Your task to perform on an android device: allow notifications from all sites in the chrome app Image 0: 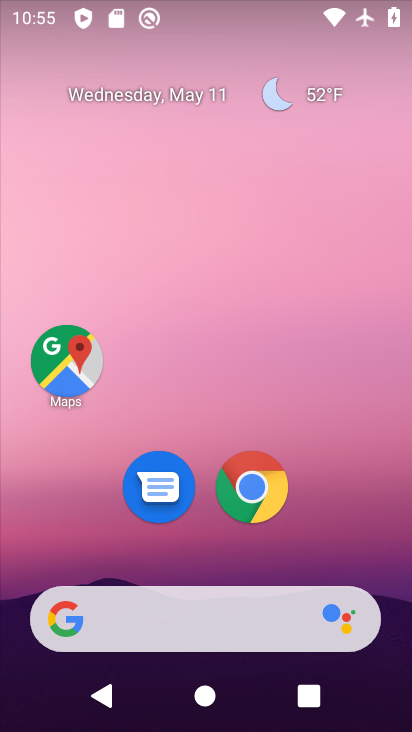
Step 0: drag from (334, 507) to (253, 28)
Your task to perform on an android device: allow notifications from all sites in the chrome app Image 1: 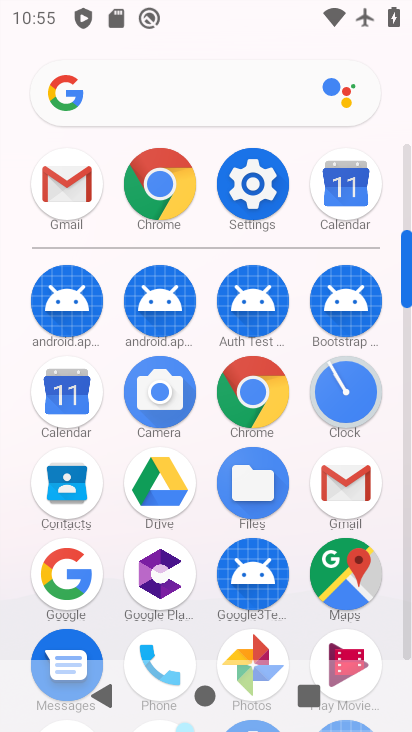
Step 1: click (255, 387)
Your task to perform on an android device: allow notifications from all sites in the chrome app Image 2: 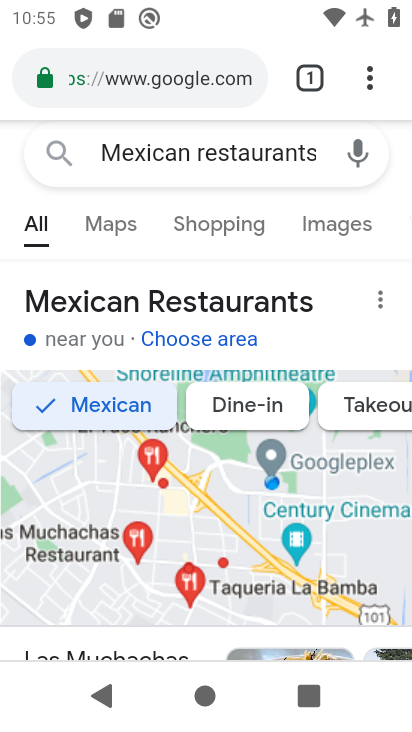
Step 2: drag from (366, 83) to (122, 543)
Your task to perform on an android device: allow notifications from all sites in the chrome app Image 3: 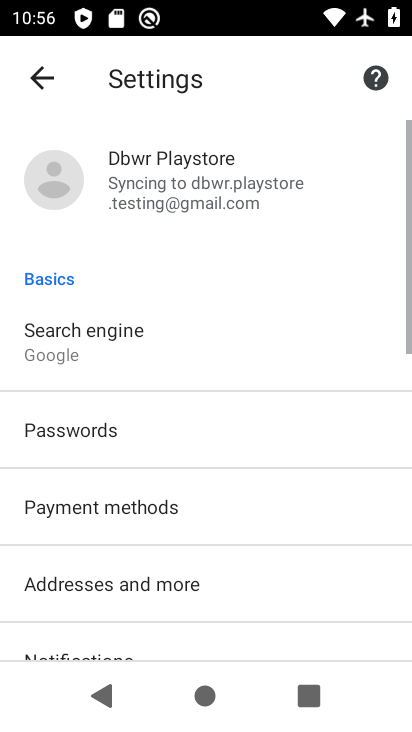
Step 3: drag from (282, 573) to (285, 260)
Your task to perform on an android device: allow notifications from all sites in the chrome app Image 4: 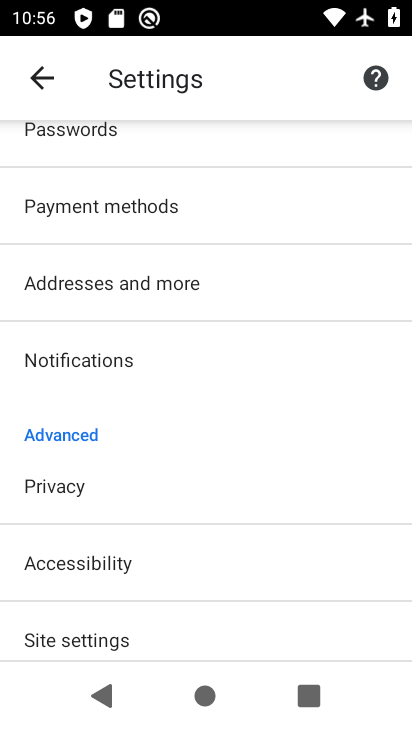
Step 4: drag from (258, 531) to (257, 215)
Your task to perform on an android device: allow notifications from all sites in the chrome app Image 5: 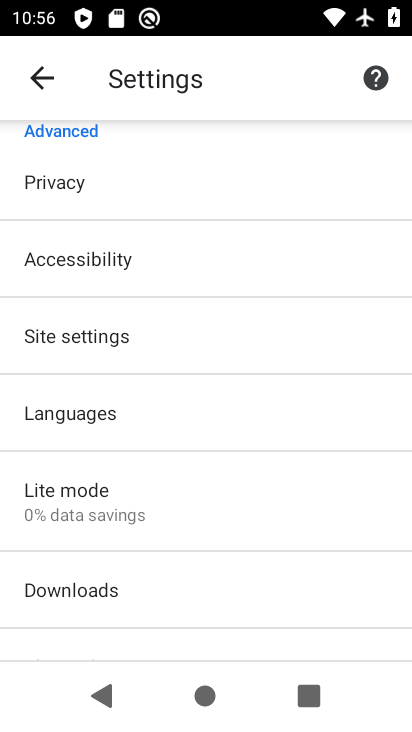
Step 5: click (179, 337)
Your task to perform on an android device: allow notifications from all sites in the chrome app Image 6: 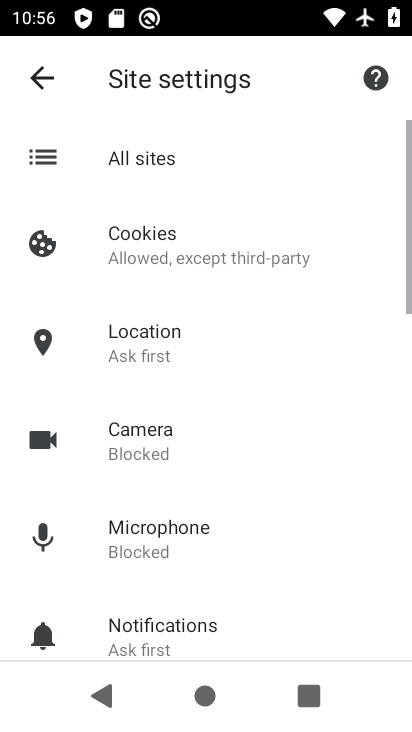
Step 6: drag from (283, 551) to (283, 235)
Your task to perform on an android device: allow notifications from all sites in the chrome app Image 7: 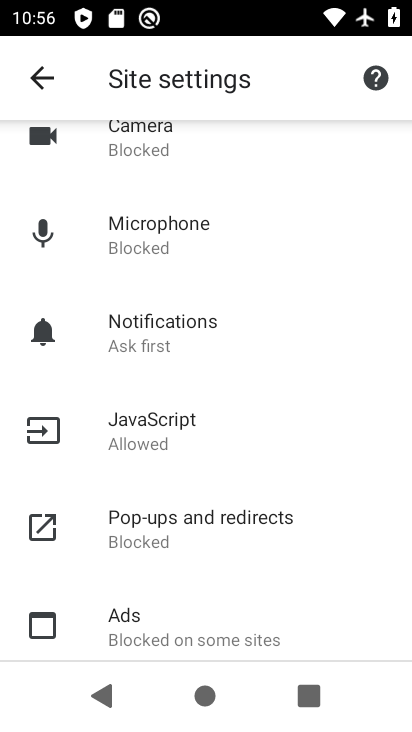
Step 7: click (189, 335)
Your task to perform on an android device: allow notifications from all sites in the chrome app Image 8: 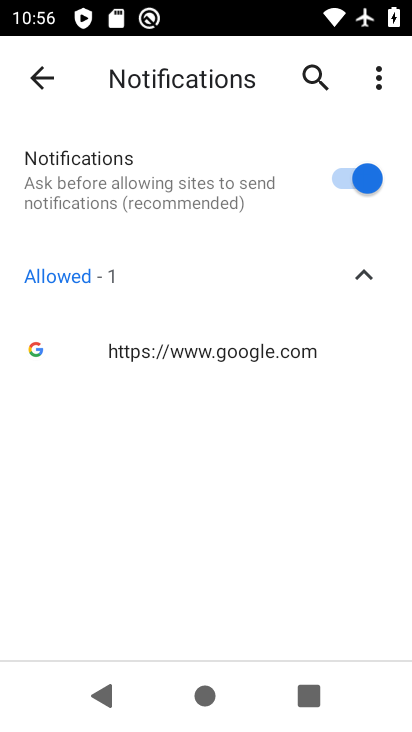
Step 8: task complete